Your task to perform on an android device: Turn off the flashlight Image 0: 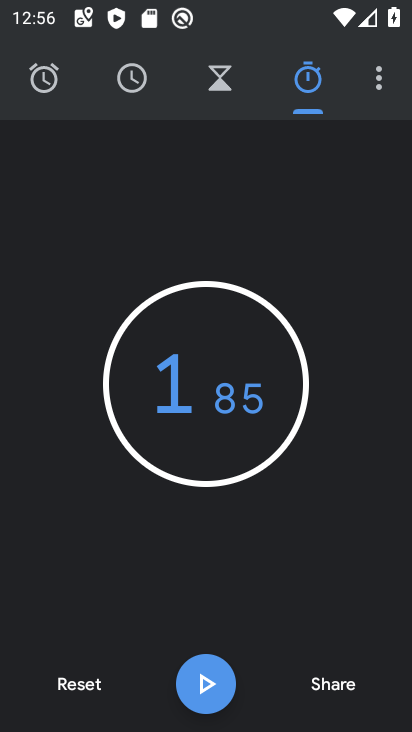
Step 0: press back button
Your task to perform on an android device: Turn off the flashlight Image 1: 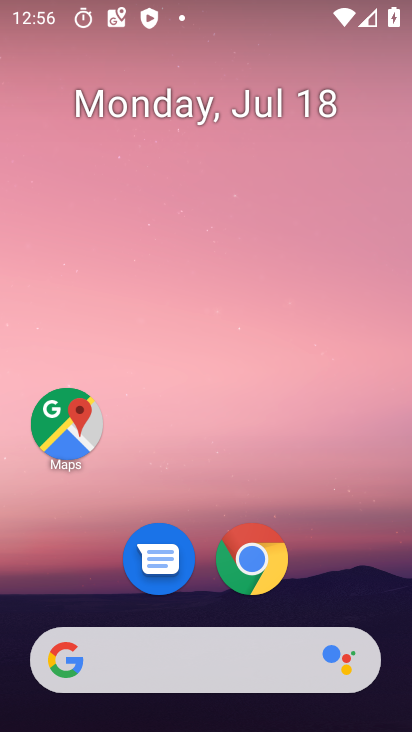
Step 1: drag from (88, 593) to (207, 4)
Your task to perform on an android device: Turn off the flashlight Image 2: 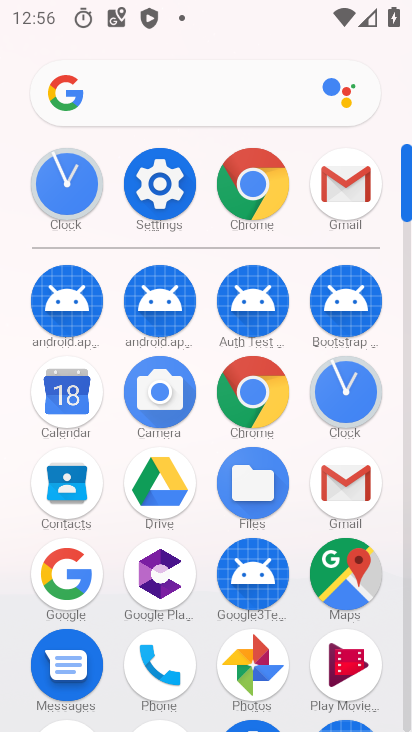
Step 2: click (171, 177)
Your task to perform on an android device: Turn off the flashlight Image 3: 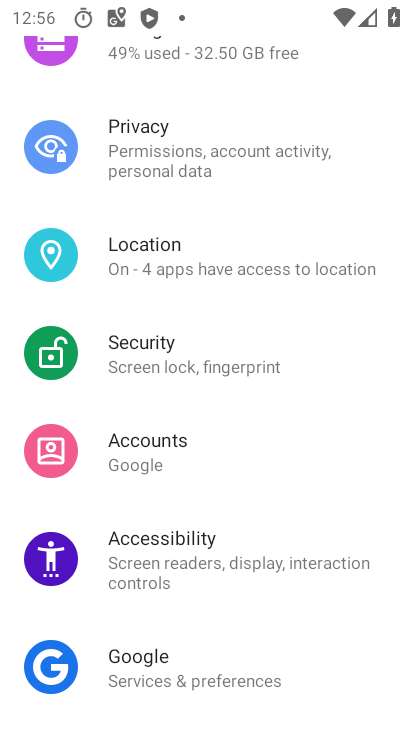
Step 3: drag from (202, 159) to (187, 717)
Your task to perform on an android device: Turn off the flashlight Image 4: 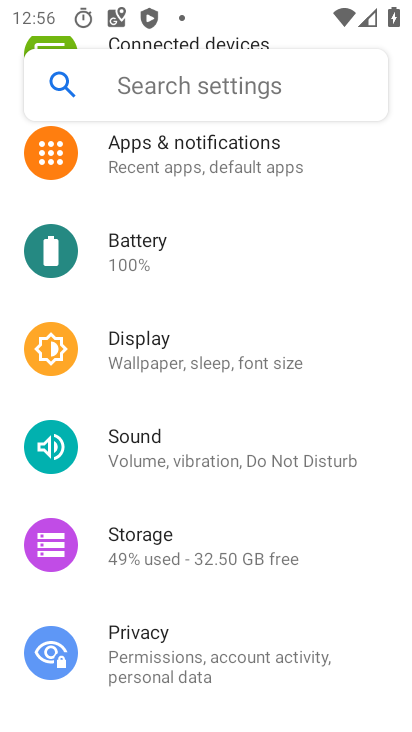
Step 4: drag from (170, 394) to (177, 728)
Your task to perform on an android device: Turn off the flashlight Image 5: 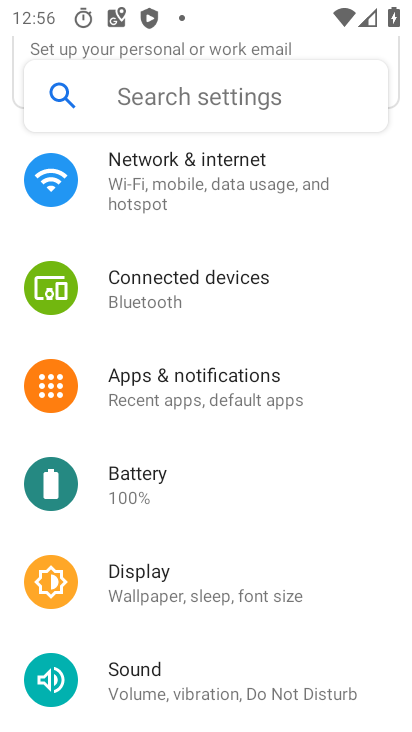
Step 5: drag from (178, 206) to (232, 731)
Your task to perform on an android device: Turn off the flashlight Image 6: 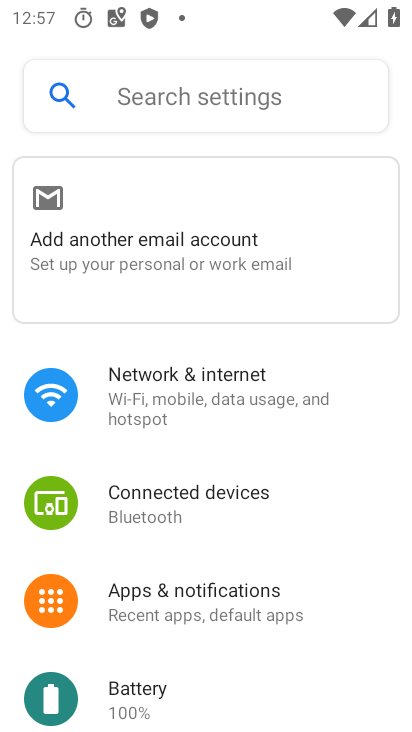
Step 6: click (212, 96)
Your task to perform on an android device: Turn off the flashlight Image 7: 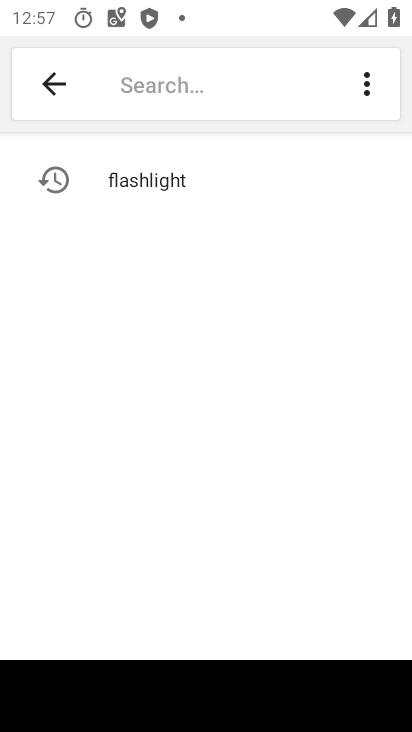
Step 7: type "flashlight"
Your task to perform on an android device: Turn off the flashlight Image 8: 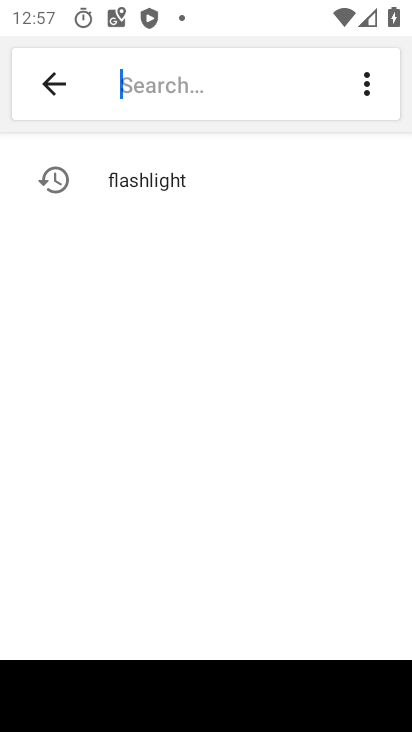
Step 8: click (163, 170)
Your task to perform on an android device: Turn off the flashlight Image 9: 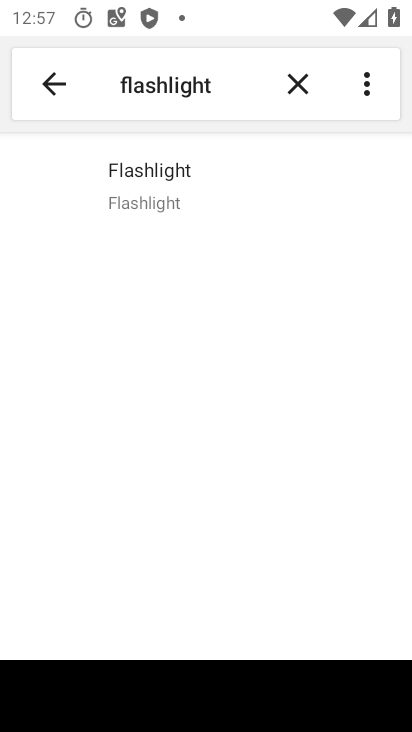
Step 9: click (177, 169)
Your task to perform on an android device: Turn off the flashlight Image 10: 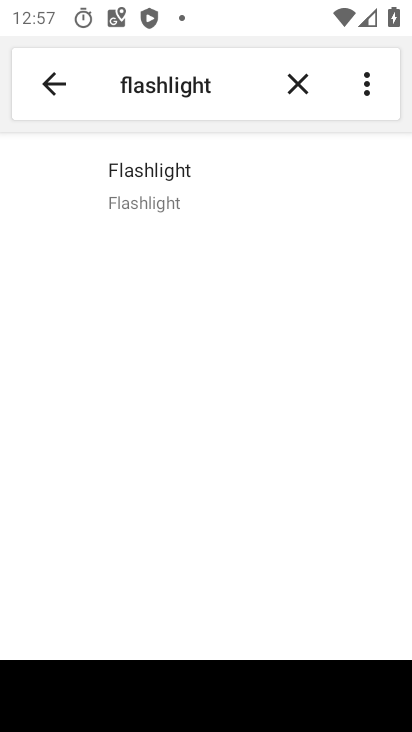
Step 10: click (168, 180)
Your task to perform on an android device: Turn off the flashlight Image 11: 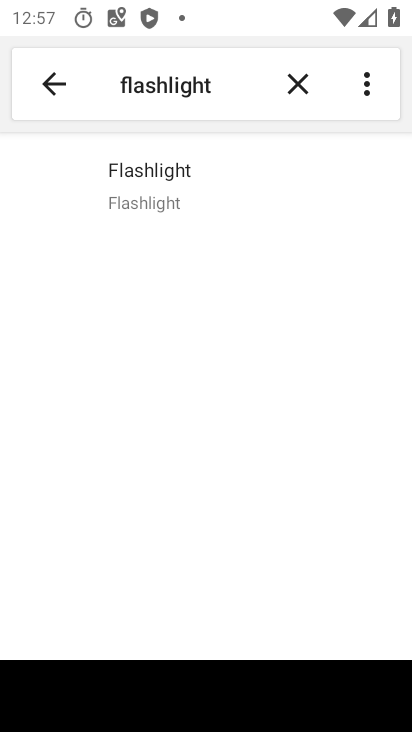
Step 11: task complete